Your task to perform on an android device: What's on my calendar tomorrow? Image 0: 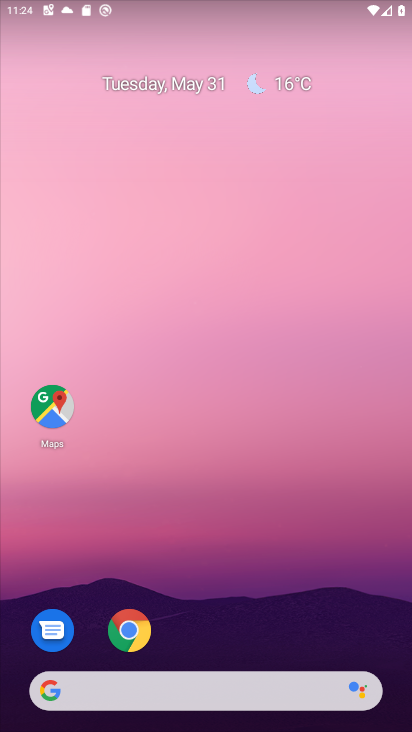
Step 0: drag from (263, 589) to (257, 153)
Your task to perform on an android device: What's on my calendar tomorrow? Image 1: 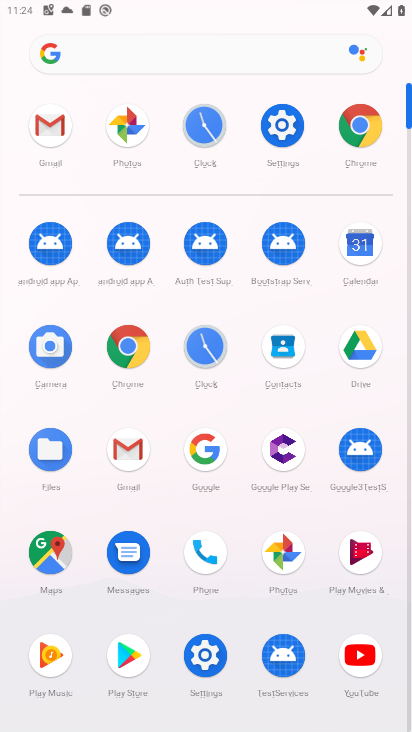
Step 1: click (360, 243)
Your task to perform on an android device: What's on my calendar tomorrow? Image 2: 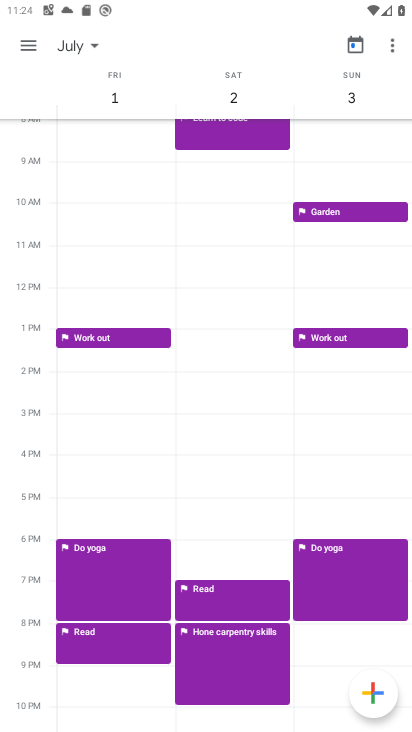
Step 2: drag from (78, 81) to (410, 74)
Your task to perform on an android device: What's on my calendar tomorrow? Image 3: 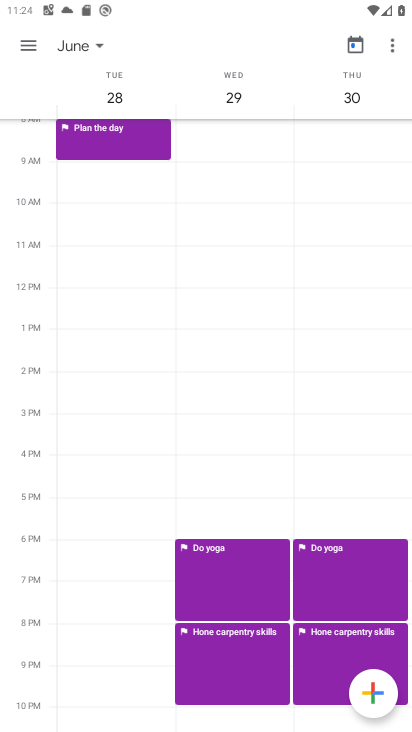
Step 3: click (113, 88)
Your task to perform on an android device: What's on my calendar tomorrow? Image 4: 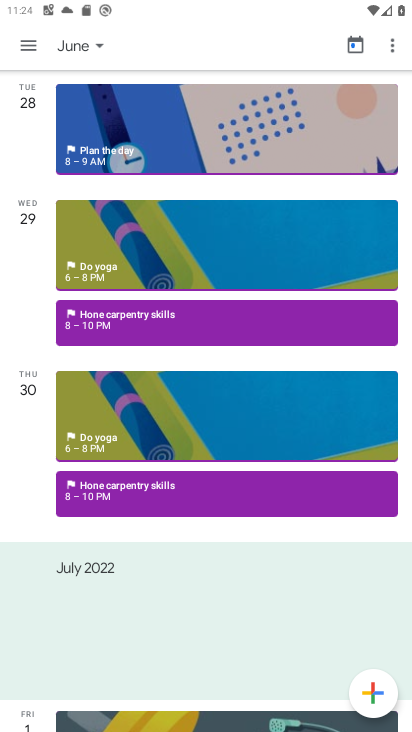
Step 4: click (93, 48)
Your task to perform on an android device: What's on my calendar tomorrow? Image 5: 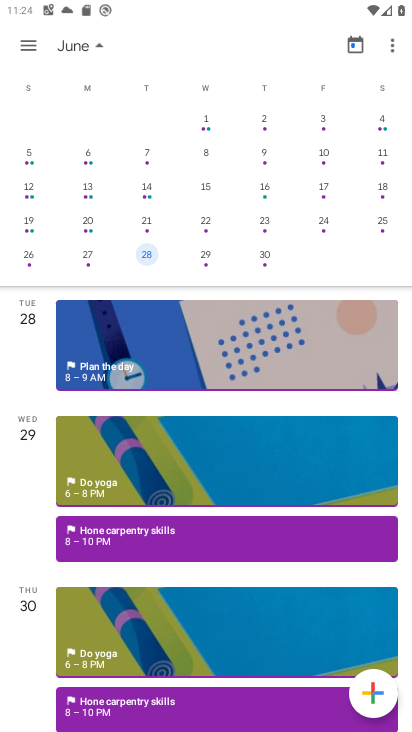
Step 5: drag from (134, 187) to (372, 168)
Your task to perform on an android device: What's on my calendar tomorrow? Image 6: 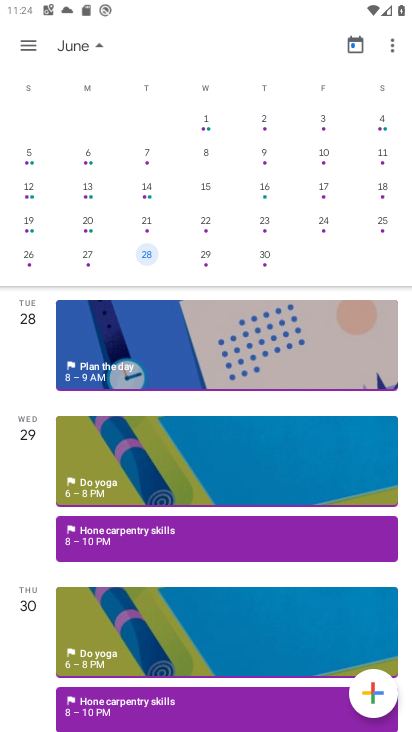
Step 6: drag from (11, 174) to (389, 142)
Your task to perform on an android device: What's on my calendar tomorrow? Image 7: 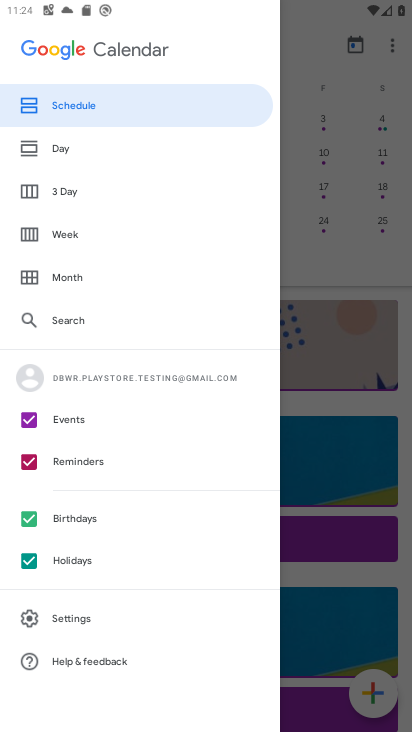
Step 7: drag from (325, 166) to (29, 229)
Your task to perform on an android device: What's on my calendar tomorrow? Image 8: 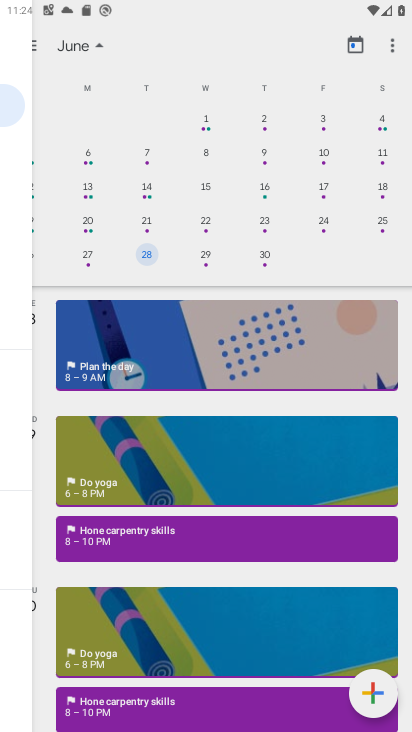
Step 8: drag from (104, 219) to (343, 164)
Your task to perform on an android device: What's on my calendar tomorrow? Image 9: 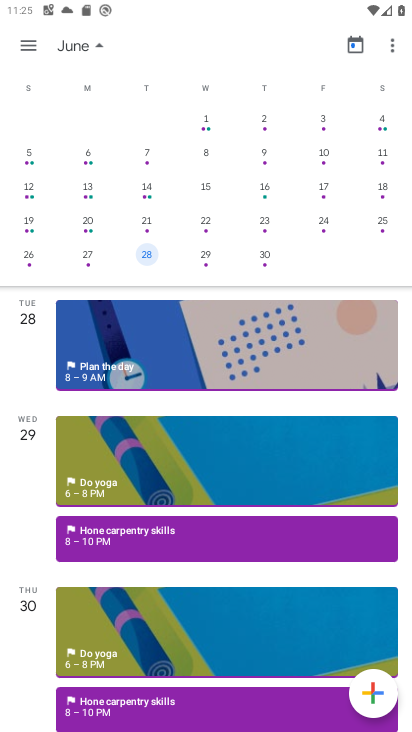
Step 9: drag from (90, 218) to (408, 235)
Your task to perform on an android device: What's on my calendar tomorrow? Image 10: 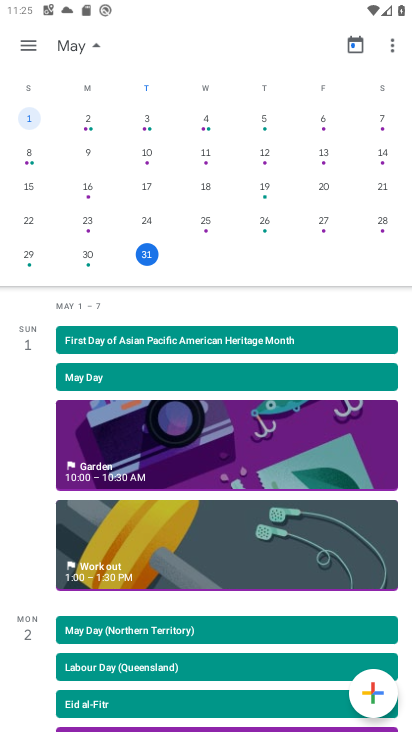
Step 10: drag from (357, 212) to (82, 192)
Your task to perform on an android device: What's on my calendar tomorrow? Image 11: 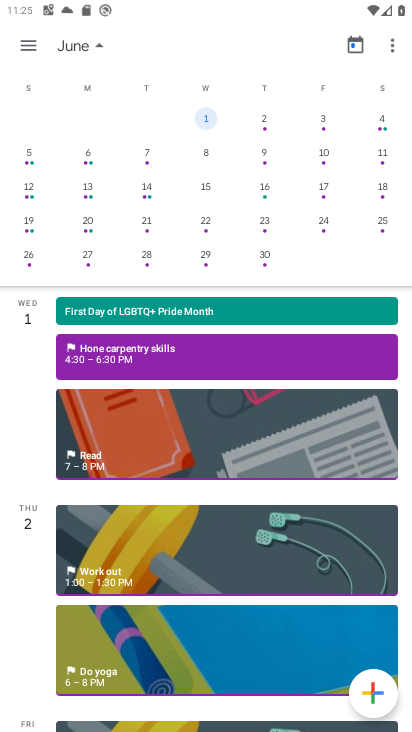
Step 11: click (203, 112)
Your task to perform on an android device: What's on my calendar tomorrow? Image 12: 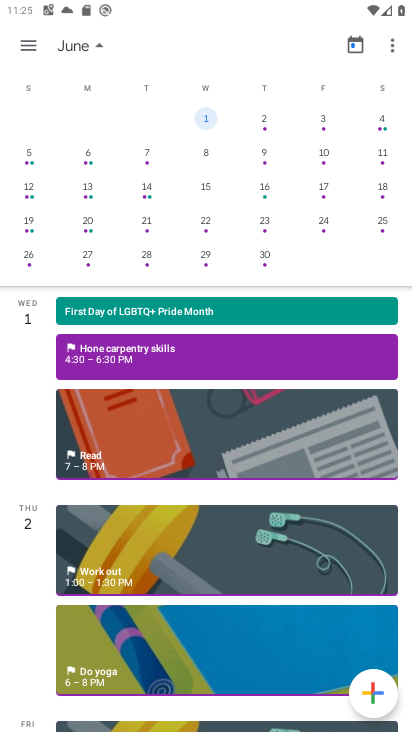
Step 12: task complete